Your task to perform on an android device: turn on wifi Image 0: 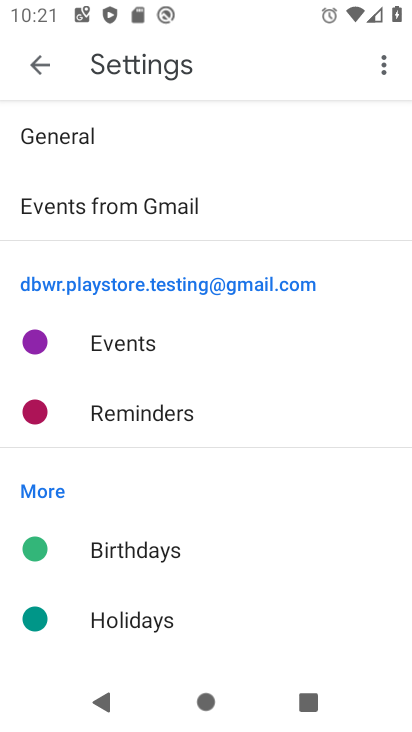
Step 0: press home button
Your task to perform on an android device: turn on wifi Image 1: 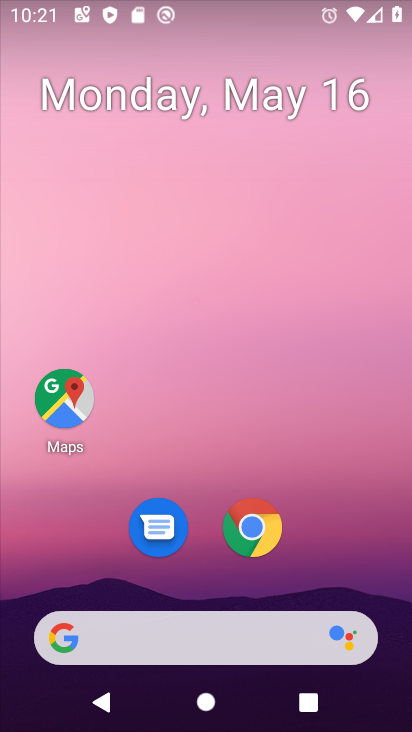
Step 1: drag from (337, 574) to (313, 3)
Your task to perform on an android device: turn on wifi Image 2: 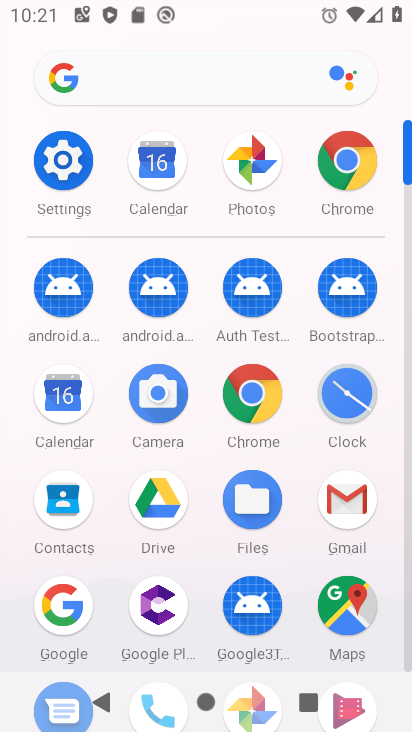
Step 2: click (56, 152)
Your task to perform on an android device: turn on wifi Image 3: 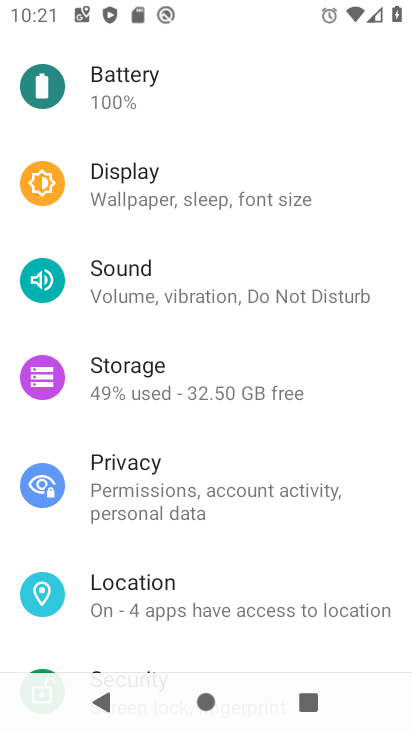
Step 3: drag from (197, 132) to (204, 410)
Your task to perform on an android device: turn on wifi Image 4: 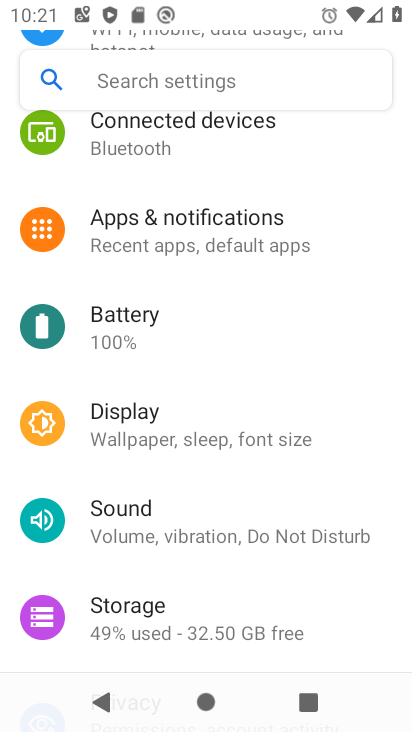
Step 4: drag from (243, 215) to (202, 473)
Your task to perform on an android device: turn on wifi Image 5: 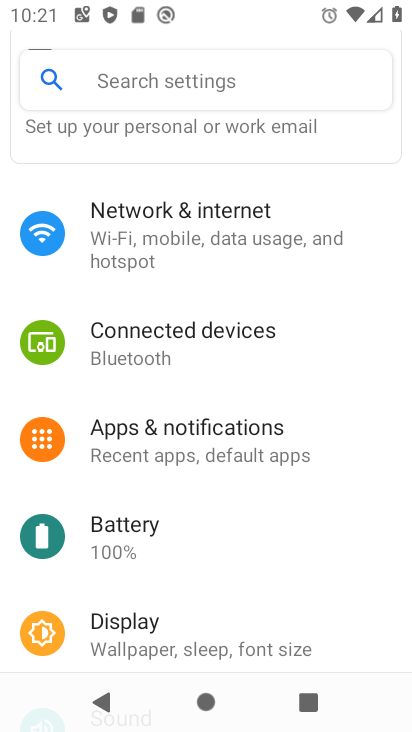
Step 5: click (156, 224)
Your task to perform on an android device: turn on wifi Image 6: 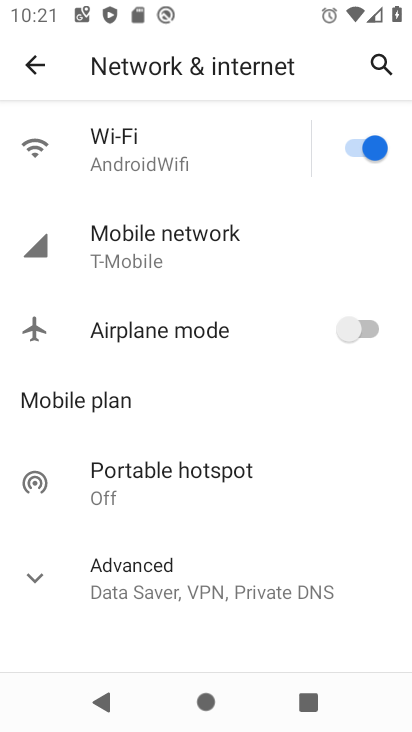
Step 6: task complete